Your task to perform on an android device: Go to Maps Image 0: 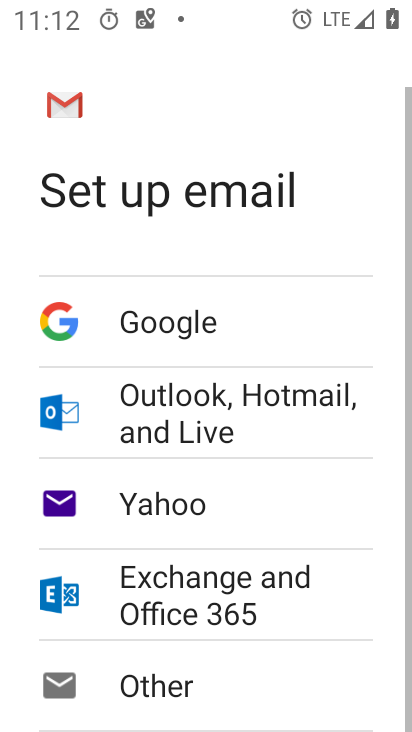
Step 0: press home button
Your task to perform on an android device: Go to Maps Image 1: 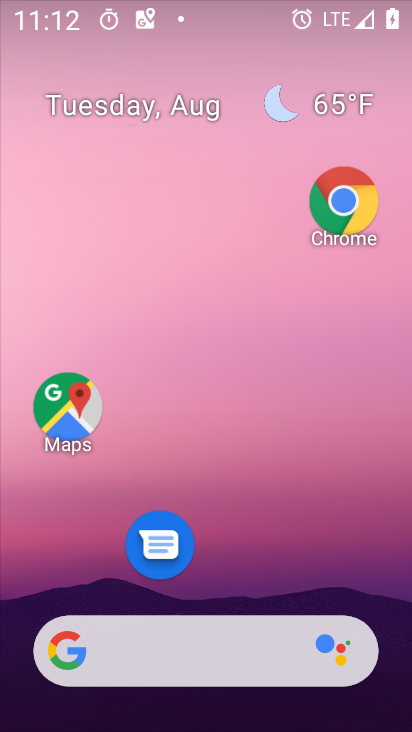
Step 1: drag from (213, 615) to (293, 151)
Your task to perform on an android device: Go to Maps Image 2: 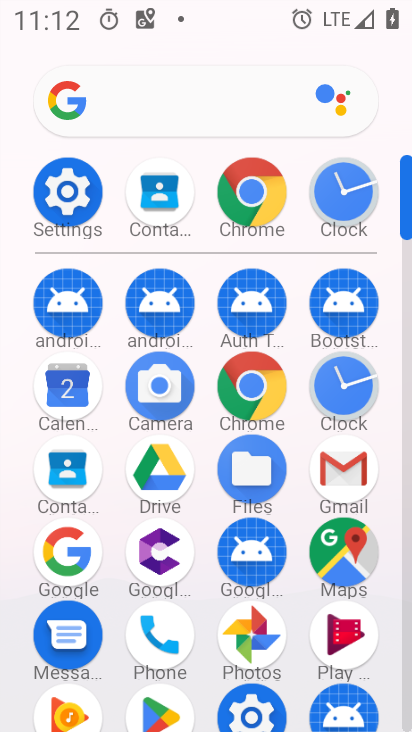
Step 2: drag from (215, 518) to (281, 210)
Your task to perform on an android device: Go to Maps Image 3: 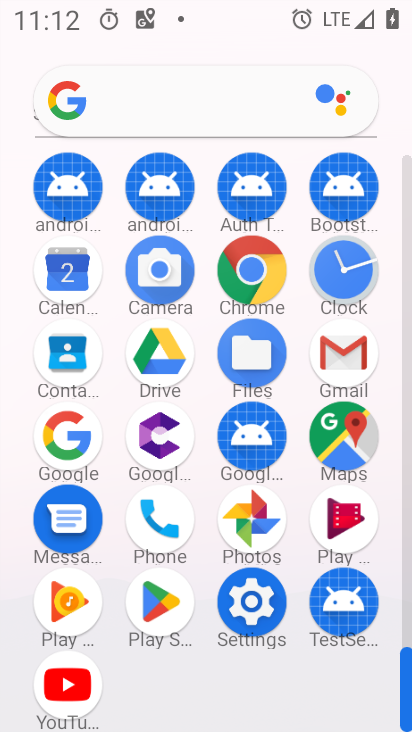
Step 3: click (341, 437)
Your task to perform on an android device: Go to Maps Image 4: 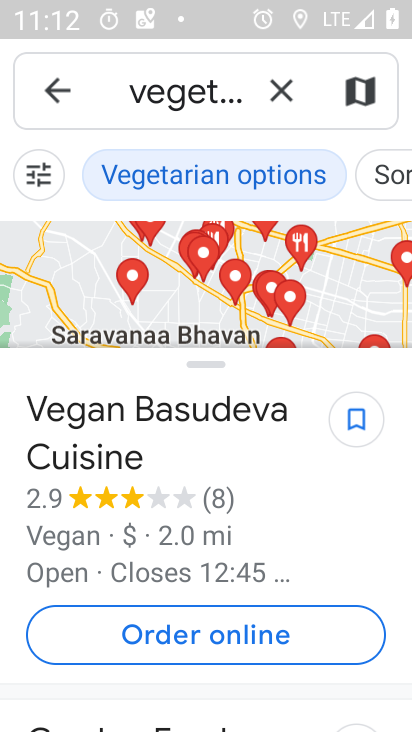
Step 4: task complete